Your task to perform on an android device: Go to Yahoo.com Image 0: 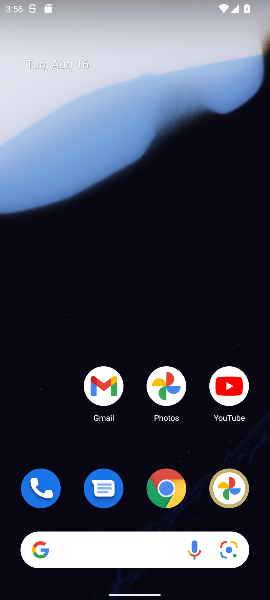
Step 0: click (125, 562)
Your task to perform on an android device: Go to Yahoo.com Image 1: 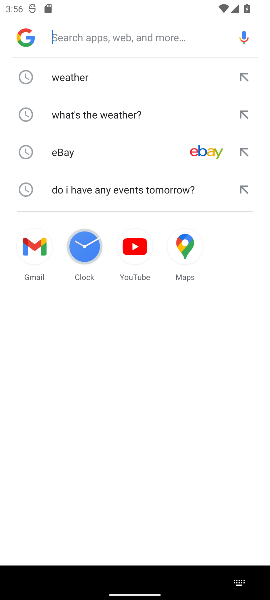
Step 1: type " Yahoo.com"
Your task to perform on an android device: Go to Yahoo.com Image 2: 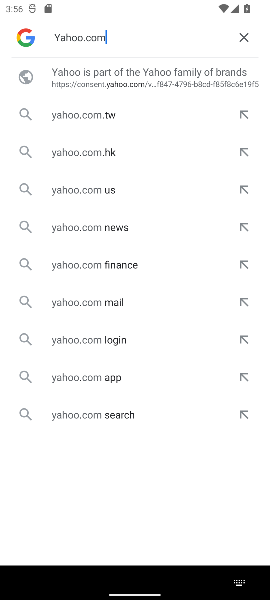
Step 2: press enter
Your task to perform on an android device: Go to Yahoo.com Image 3: 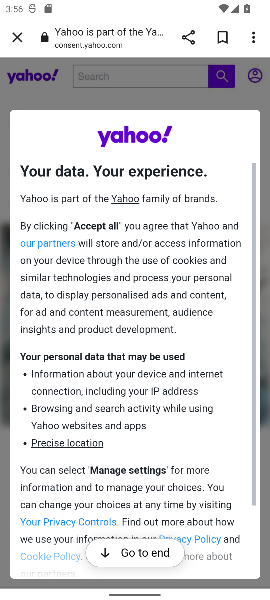
Step 3: task complete